Your task to perform on an android device: see tabs open on other devices in the chrome app Image 0: 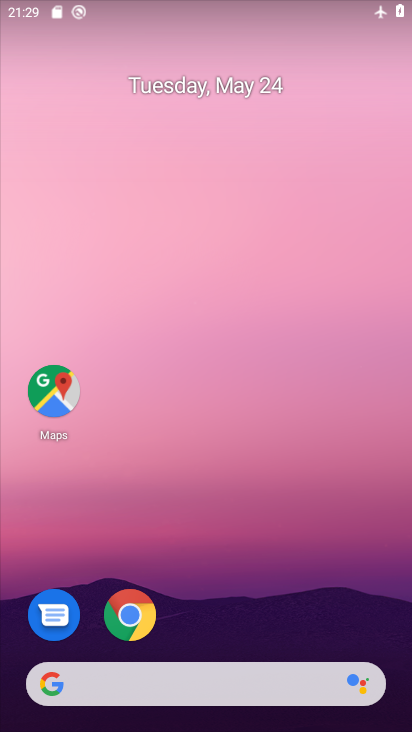
Step 0: click (129, 599)
Your task to perform on an android device: see tabs open on other devices in the chrome app Image 1: 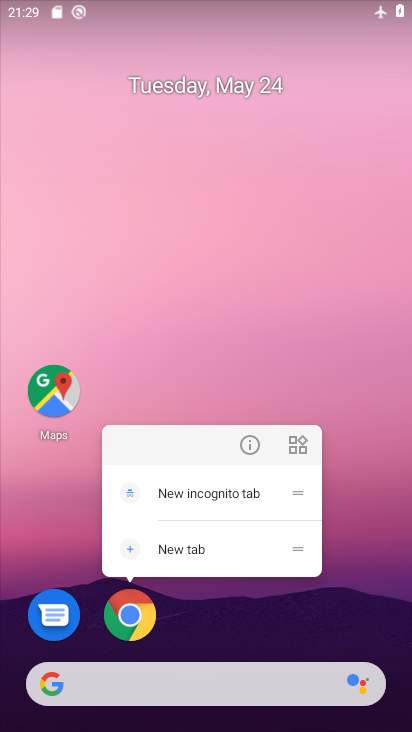
Step 1: click (135, 619)
Your task to perform on an android device: see tabs open on other devices in the chrome app Image 2: 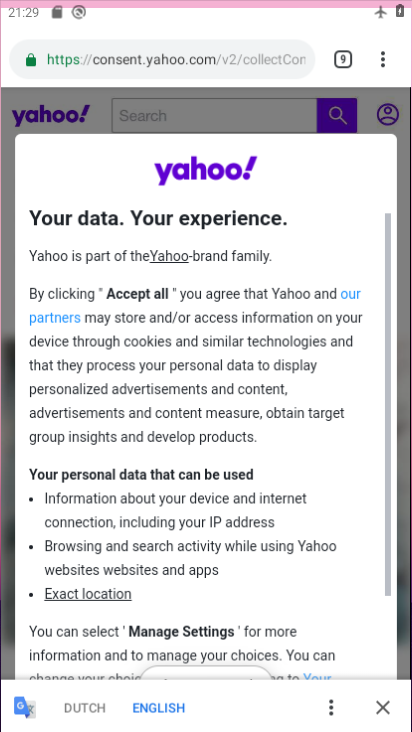
Step 2: click (128, 616)
Your task to perform on an android device: see tabs open on other devices in the chrome app Image 3: 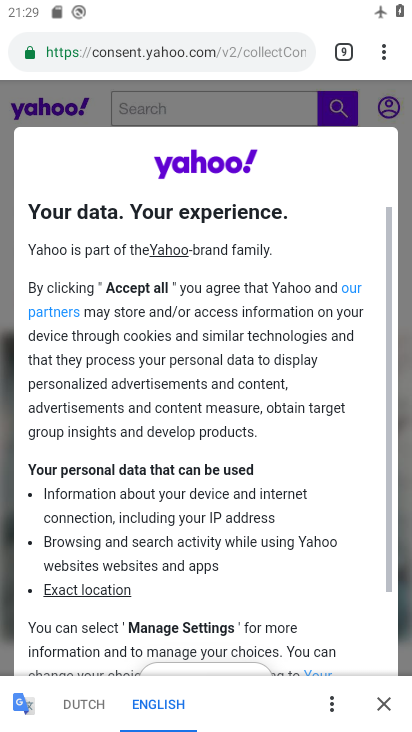
Step 3: click (385, 45)
Your task to perform on an android device: see tabs open on other devices in the chrome app Image 4: 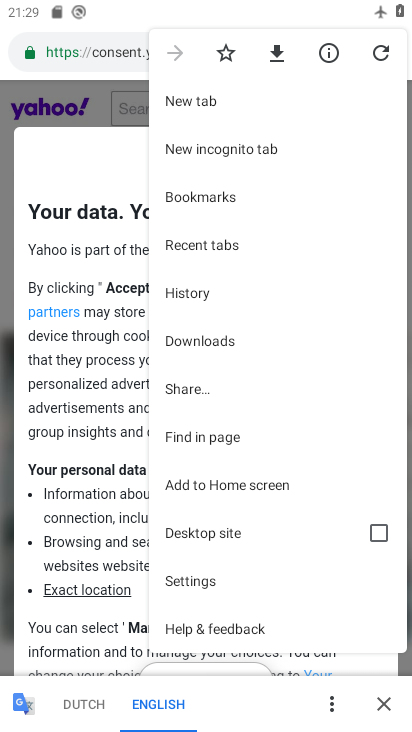
Step 4: click (210, 109)
Your task to perform on an android device: see tabs open on other devices in the chrome app Image 5: 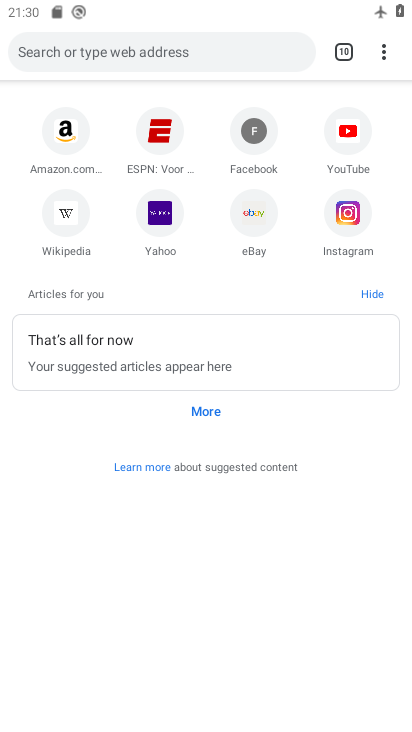
Step 5: task complete